Your task to perform on an android device: see creations saved in the google photos Image 0: 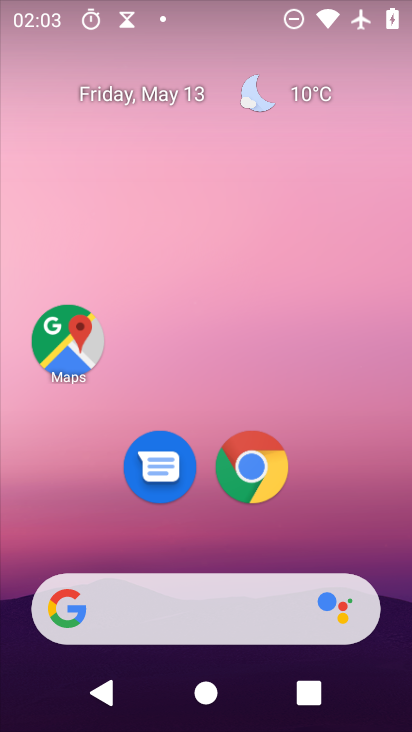
Step 0: drag from (320, 460) to (289, 63)
Your task to perform on an android device: see creations saved in the google photos Image 1: 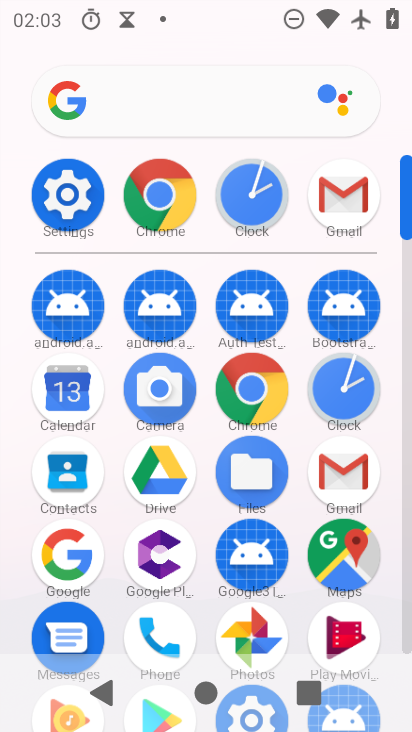
Step 1: click (254, 634)
Your task to perform on an android device: see creations saved in the google photos Image 2: 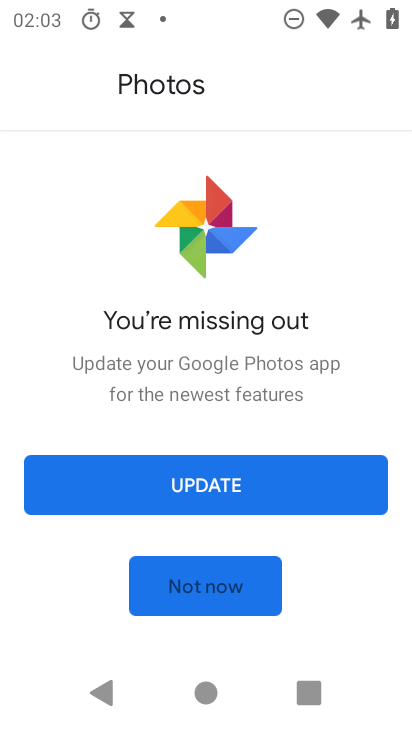
Step 2: click (226, 489)
Your task to perform on an android device: see creations saved in the google photos Image 3: 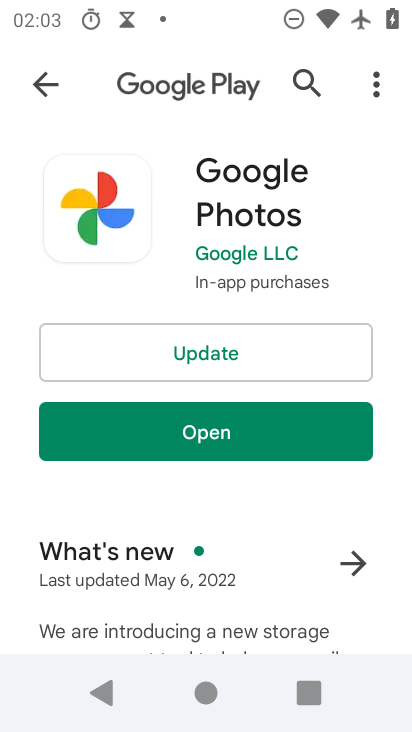
Step 3: click (235, 358)
Your task to perform on an android device: see creations saved in the google photos Image 4: 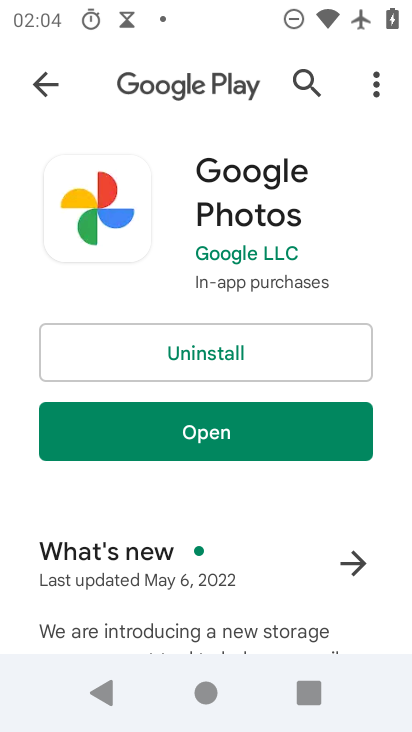
Step 4: click (266, 420)
Your task to perform on an android device: see creations saved in the google photos Image 5: 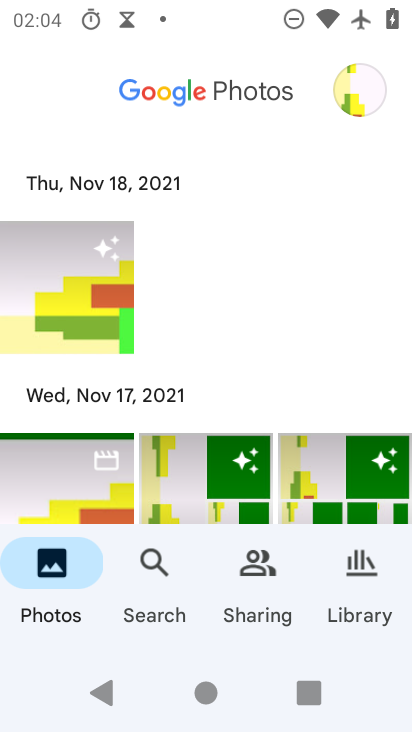
Step 5: click (163, 569)
Your task to perform on an android device: see creations saved in the google photos Image 6: 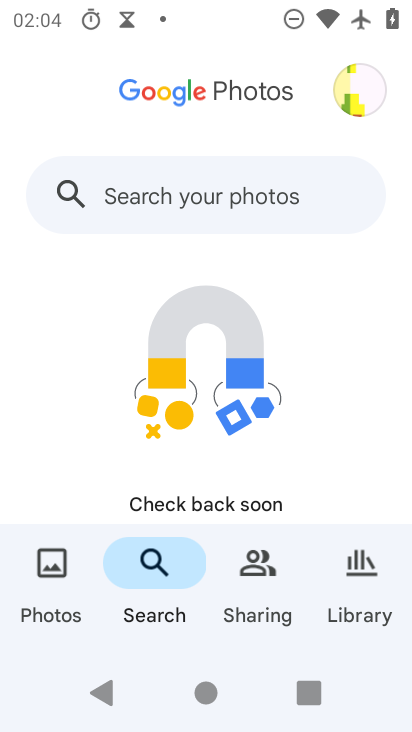
Step 6: click (158, 201)
Your task to perform on an android device: see creations saved in the google photos Image 7: 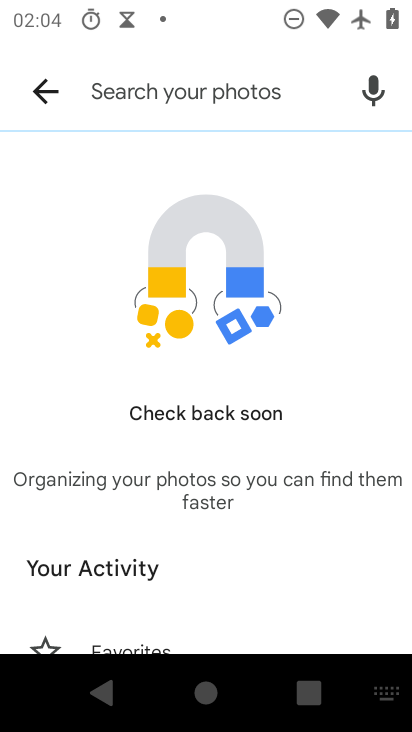
Step 7: type "creations"
Your task to perform on an android device: see creations saved in the google photos Image 8: 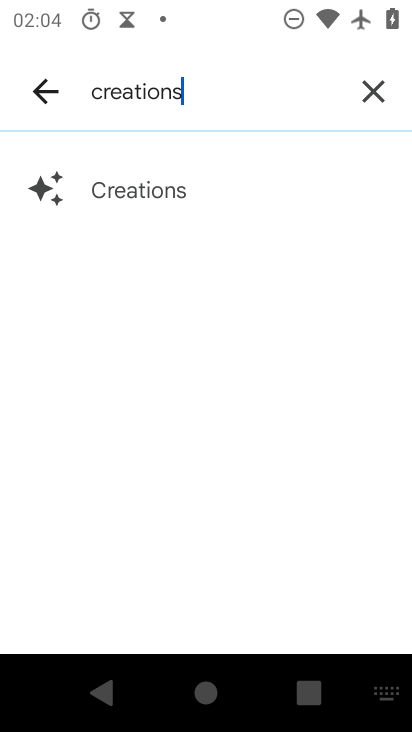
Step 8: click (214, 191)
Your task to perform on an android device: see creations saved in the google photos Image 9: 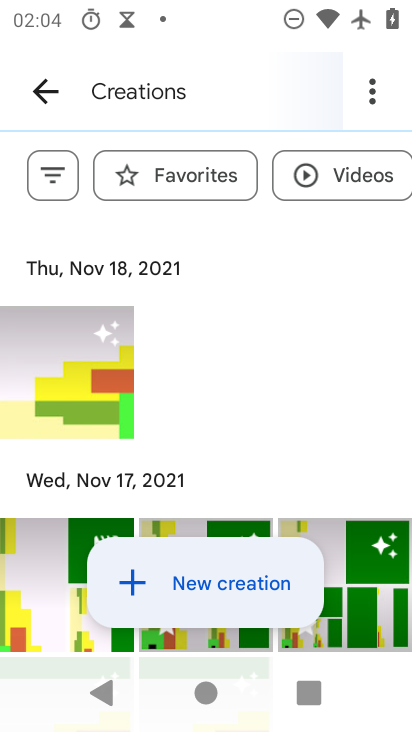
Step 9: task complete